Your task to perform on an android device: Open Google Maps Image 0: 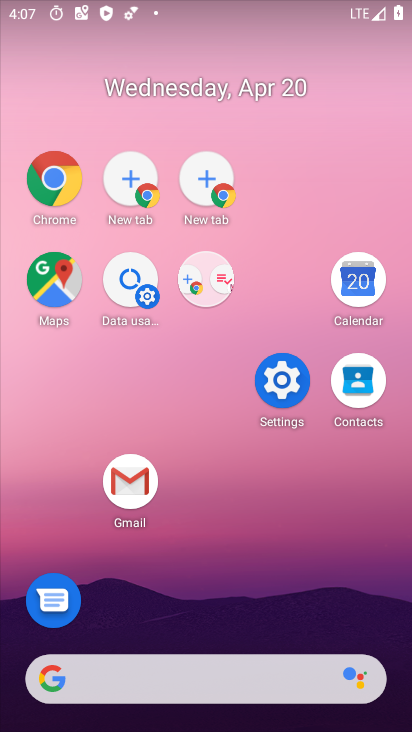
Step 0: click (65, 283)
Your task to perform on an android device: Open Google Maps Image 1: 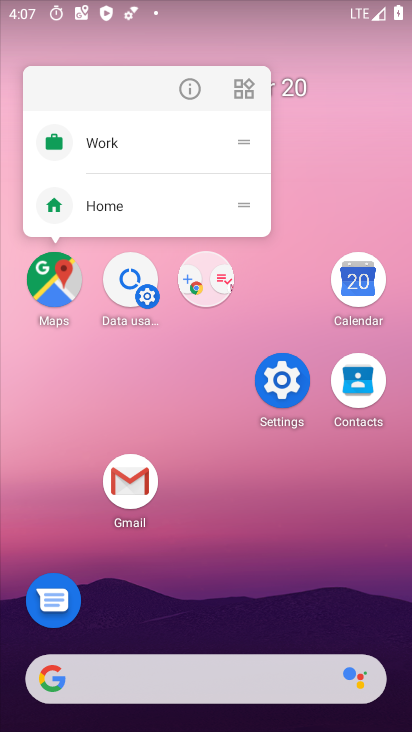
Step 1: click (65, 283)
Your task to perform on an android device: Open Google Maps Image 2: 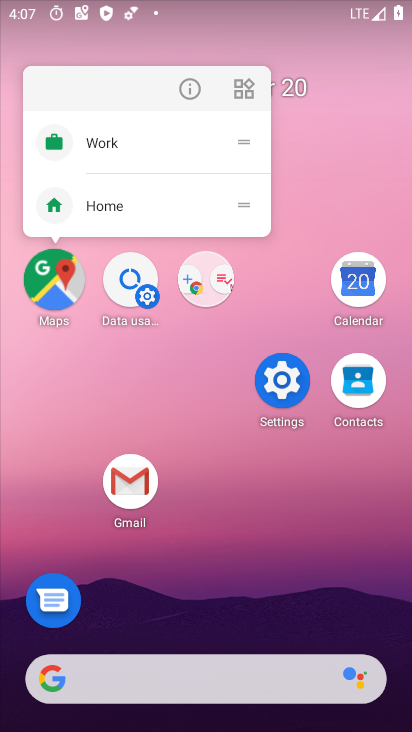
Step 2: click (64, 287)
Your task to perform on an android device: Open Google Maps Image 3: 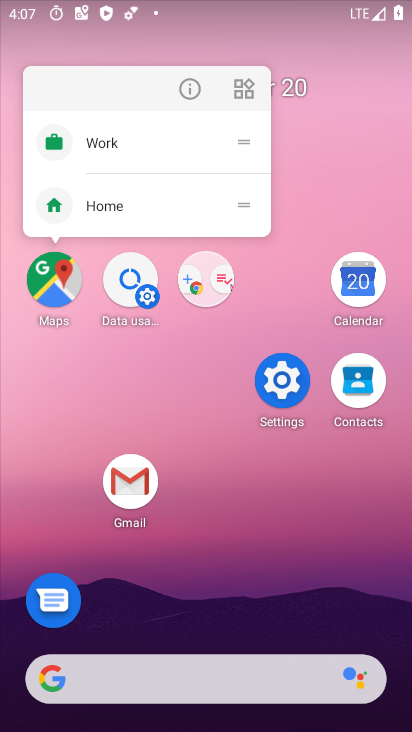
Step 3: click (1, 259)
Your task to perform on an android device: Open Google Maps Image 4: 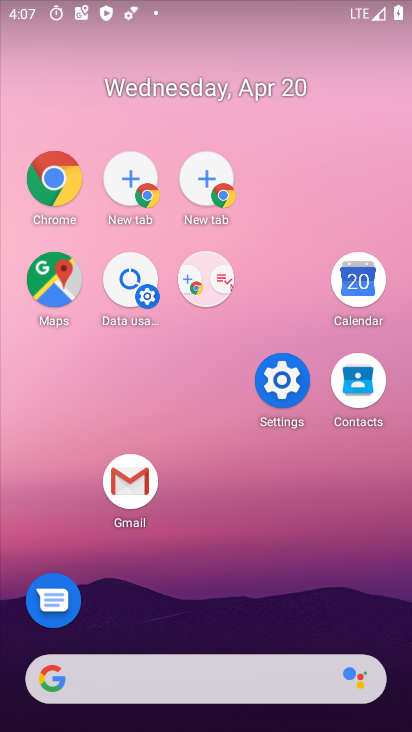
Step 4: click (56, 277)
Your task to perform on an android device: Open Google Maps Image 5: 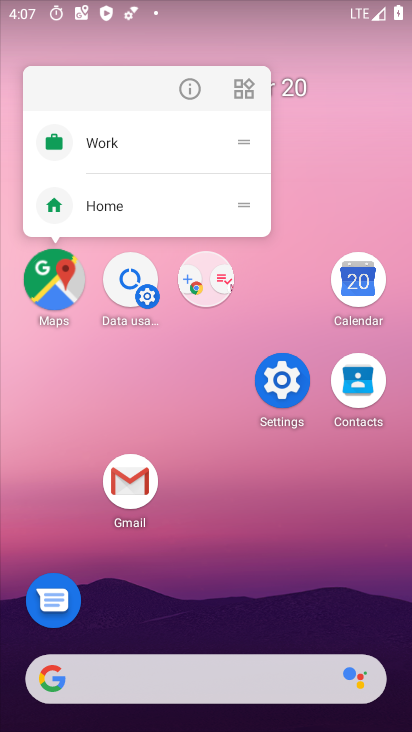
Step 5: click (53, 263)
Your task to perform on an android device: Open Google Maps Image 6: 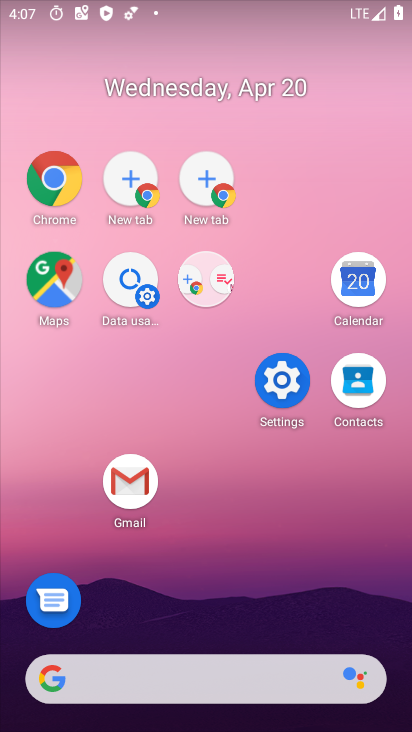
Step 6: click (111, 347)
Your task to perform on an android device: Open Google Maps Image 7: 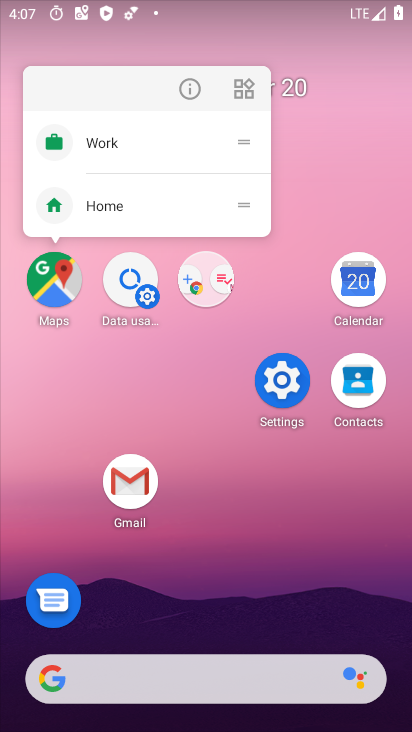
Step 7: click (56, 278)
Your task to perform on an android device: Open Google Maps Image 8: 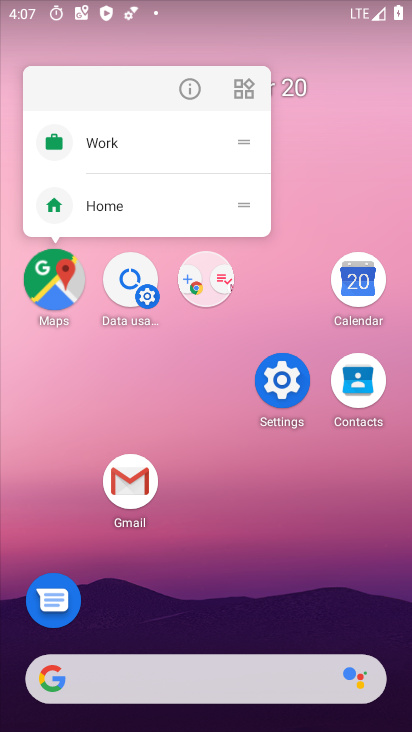
Step 8: click (56, 278)
Your task to perform on an android device: Open Google Maps Image 9: 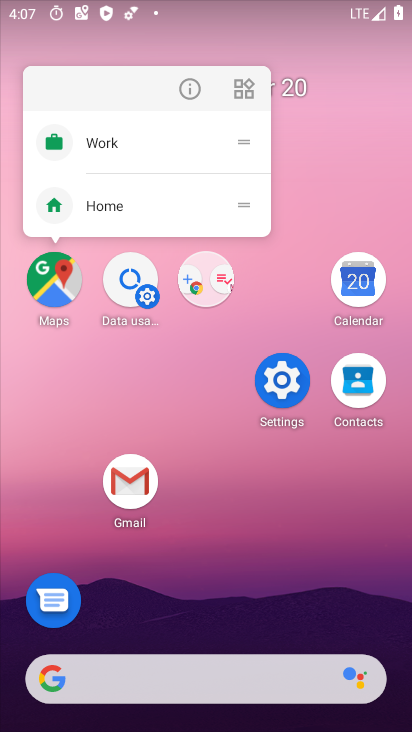
Step 9: click (56, 278)
Your task to perform on an android device: Open Google Maps Image 10: 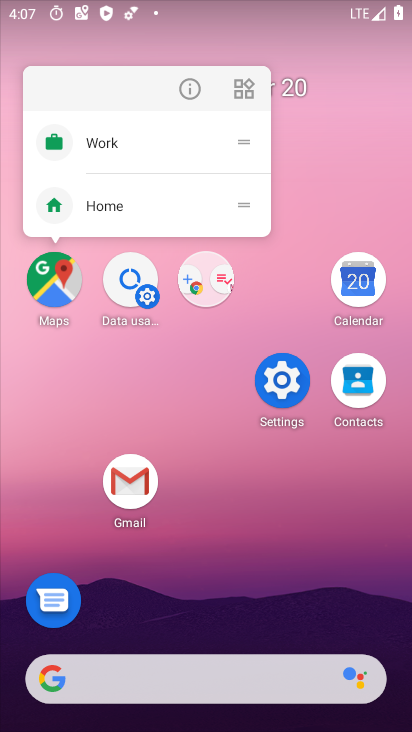
Step 10: click (48, 285)
Your task to perform on an android device: Open Google Maps Image 11: 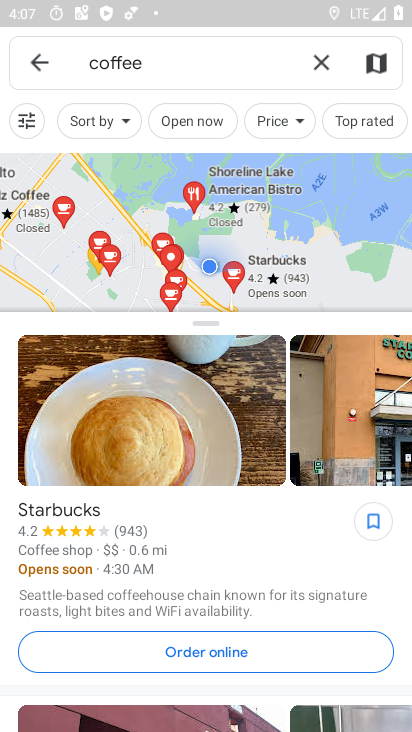
Step 11: task complete